Your task to perform on an android device: turn on data saver in the chrome app Image 0: 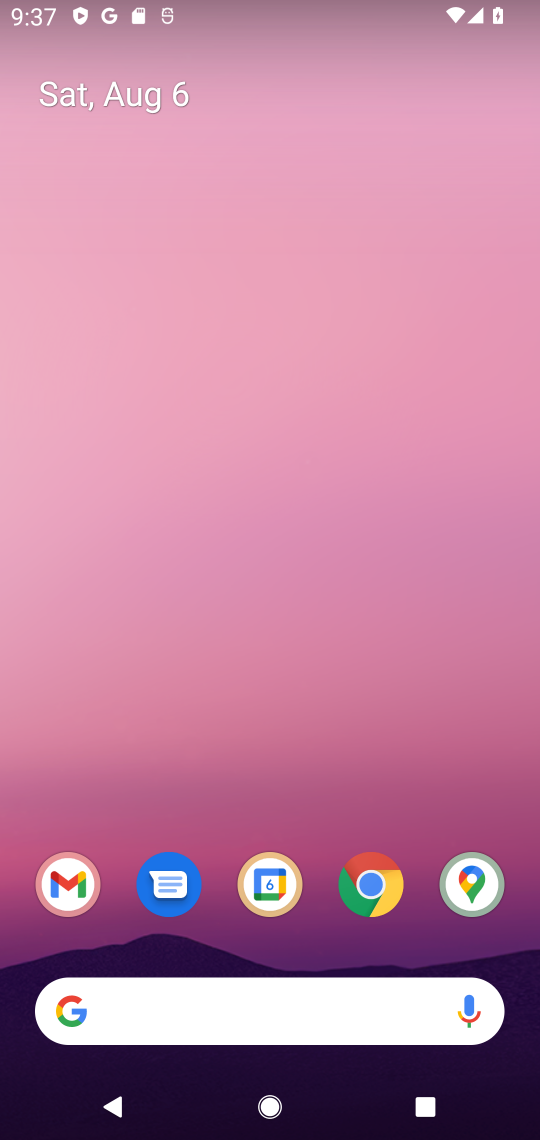
Step 0: click (373, 885)
Your task to perform on an android device: turn on data saver in the chrome app Image 1: 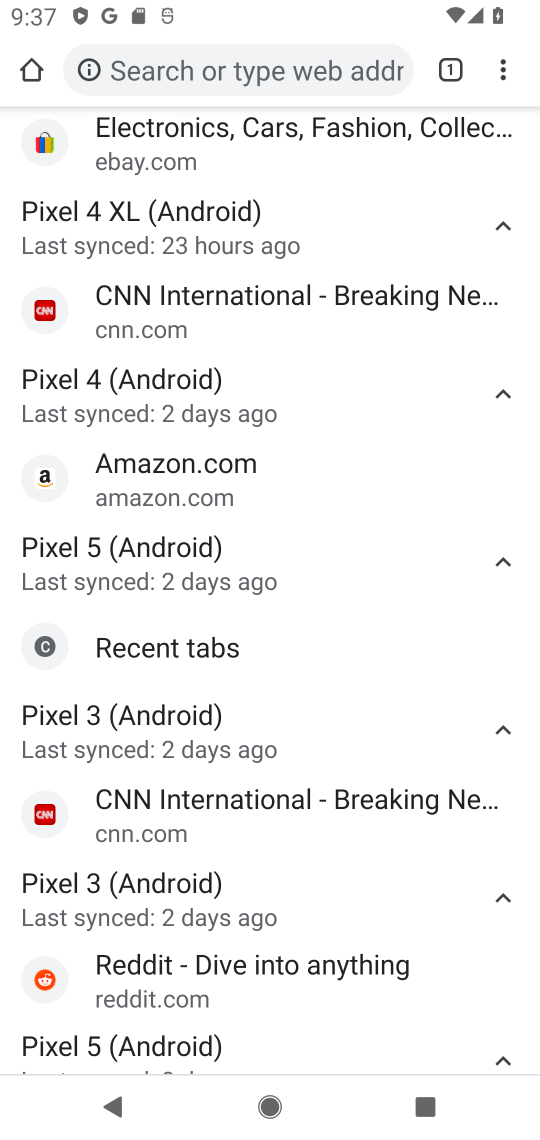
Step 1: click (497, 77)
Your task to perform on an android device: turn on data saver in the chrome app Image 2: 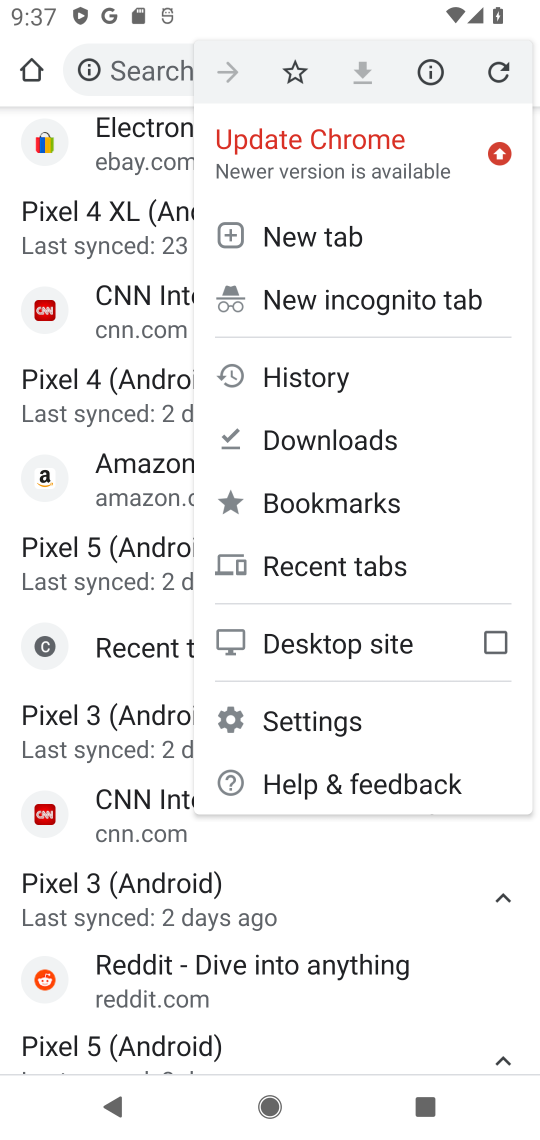
Step 2: click (302, 723)
Your task to perform on an android device: turn on data saver in the chrome app Image 3: 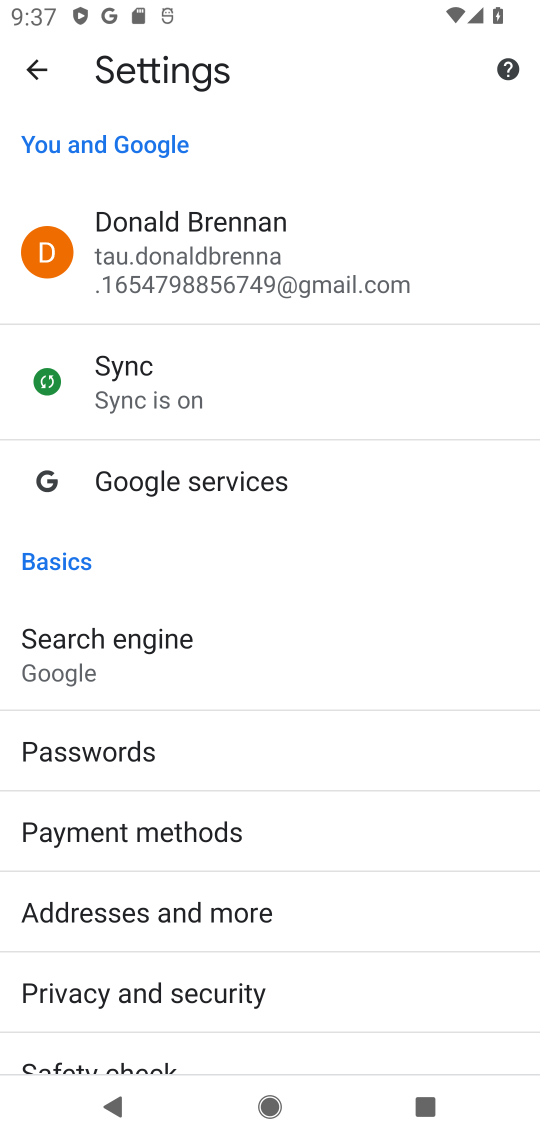
Step 3: drag from (344, 1004) to (335, 486)
Your task to perform on an android device: turn on data saver in the chrome app Image 4: 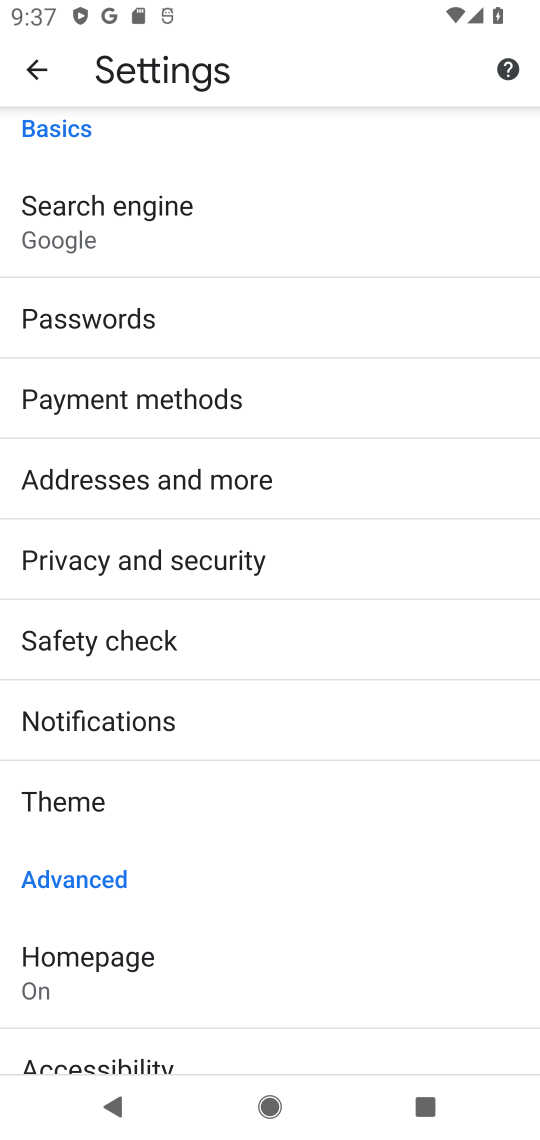
Step 4: drag from (297, 980) to (316, 427)
Your task to perform on an android device: turn on data saver in the chrome app Image 5: 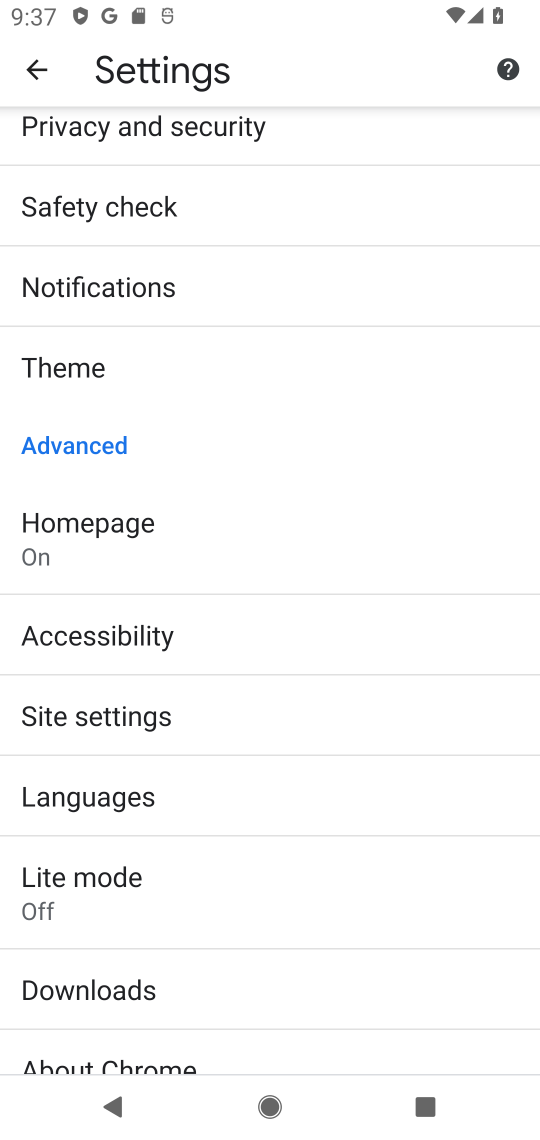
Step 5: click (67, 908)
Your task to perform on an android device: turn on data saver in the chrome app Image 6: 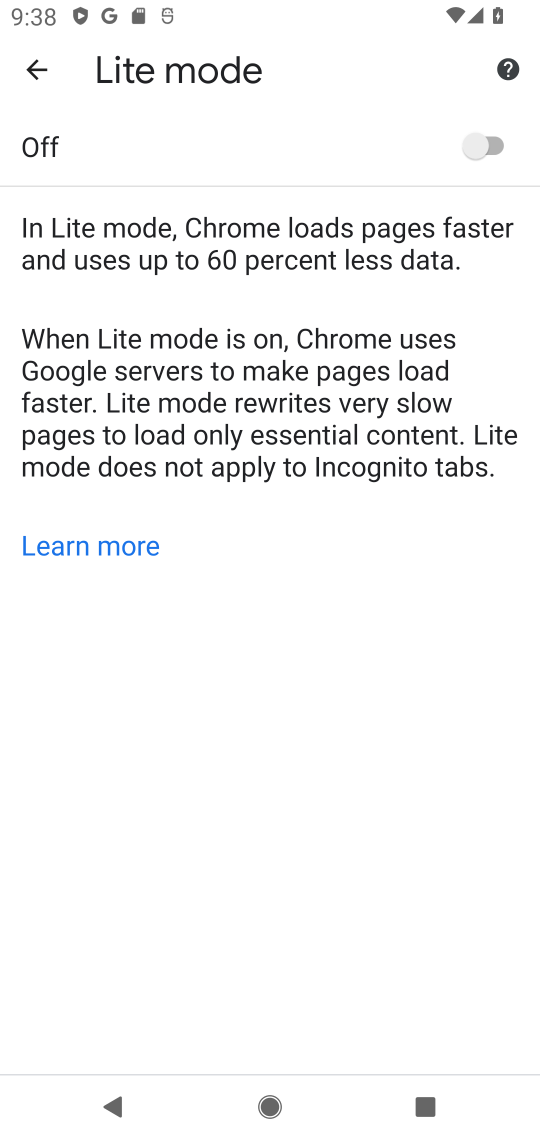
Step 6: click (500, 134)
Your task to perform on an android device: turn on data saver in the chrome app Image 7: 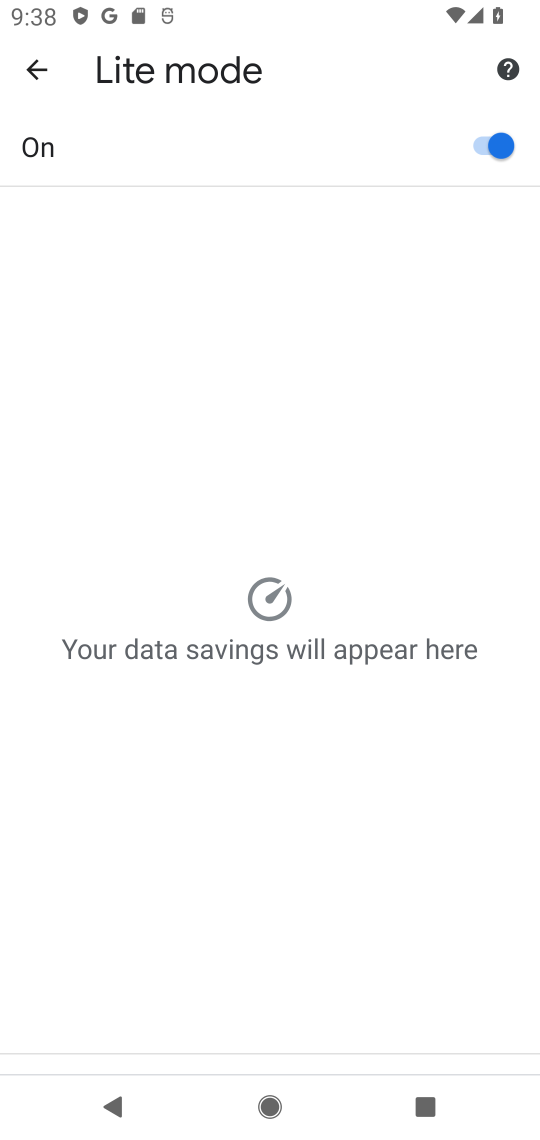
Step 7: task complete